Your task to perform on an android device: change keyboard looks Image 0: 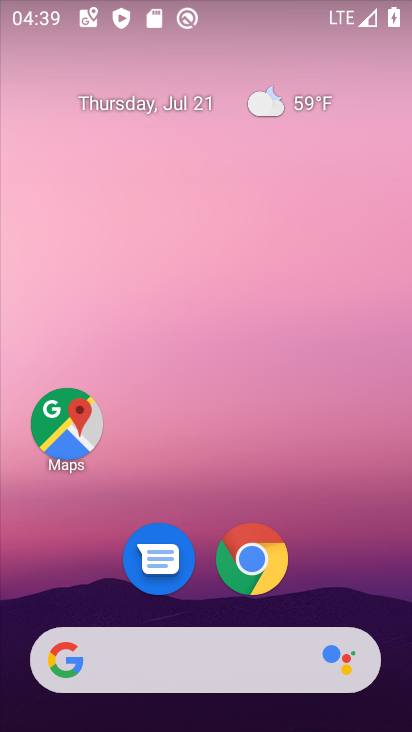
Step 0: drag from (94, 637) to (155, 5)
Your task to perform on an android device: change keyboard looks Image 1: 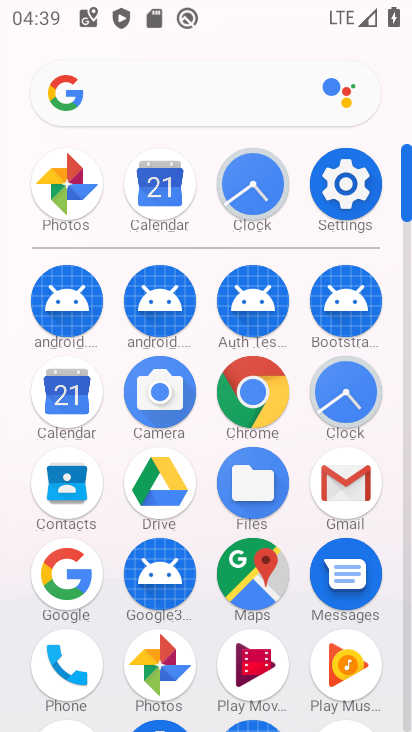
Step 1: click (338, 188)
Your task to perform on an android device: change keyboard looks Image 2: 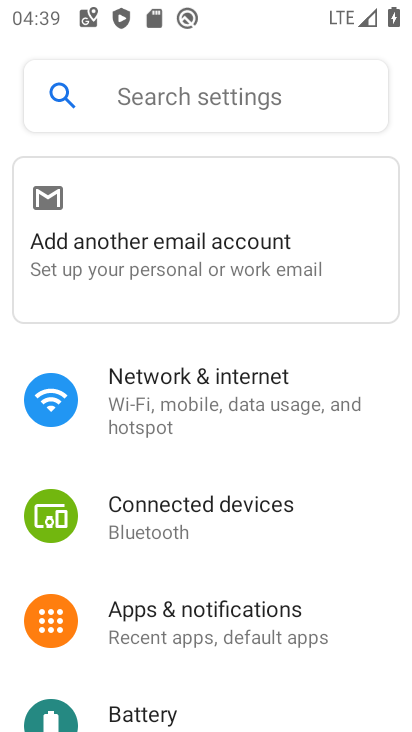
Step 2: drag from (157, 658) to (260, 18)
Your task to perform on an android device: change keyboard looks Image 3: 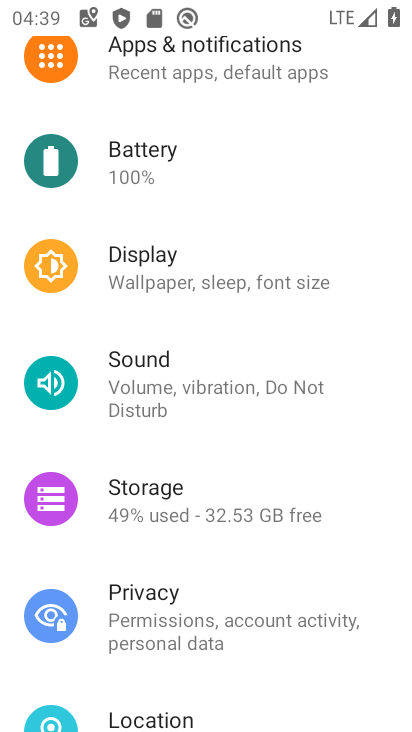
Step 3: drag from (178, 656) to (295, 14)
Your task to perform on an android device: change keyboard looks Image 4: 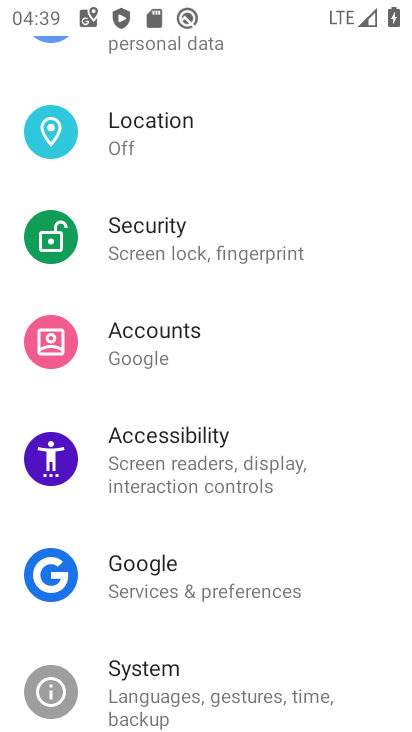
Step 4: click (168, 689)
Your task to perform on an android device: change keyboard looks Image 5: 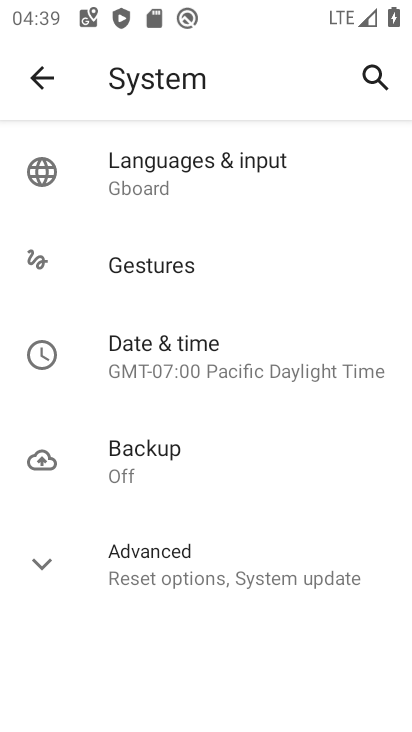
Step 5: click (144, 169)
Your task to perform on an android device: change keyboard looks Image 6: 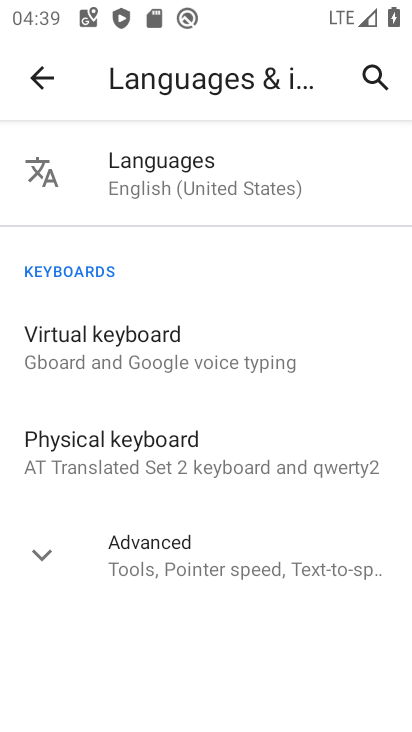
Step 6: click (136, 352)
Your task to perform on an android device: change keyboard looks Image 7: 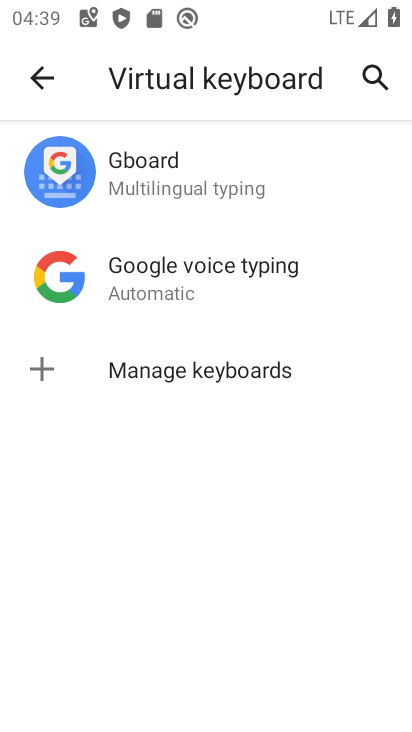
Step 7: click (166, 162)
Your task to perform on an android device: change keyboard looks Image 8: 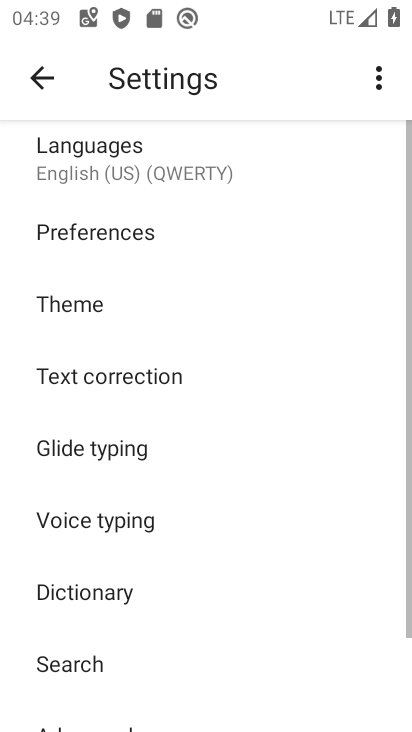
Step 8: click (68, 297)
Your task to perform on an android device: change keyboard looks Image 9: 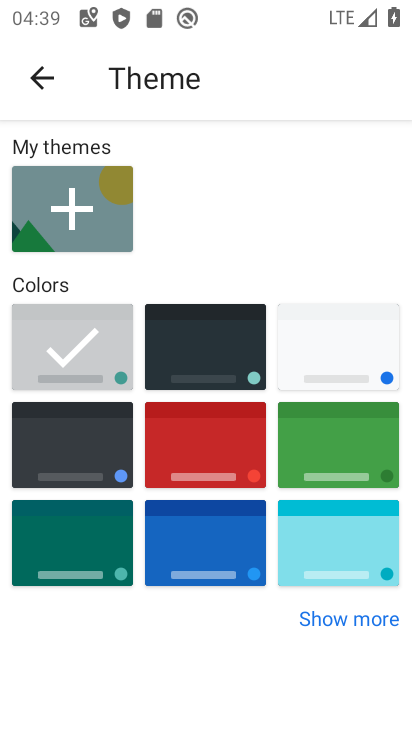
Step 9: click (360, 449)
Your task to perform on an android device: change keyboard looks Image 10: 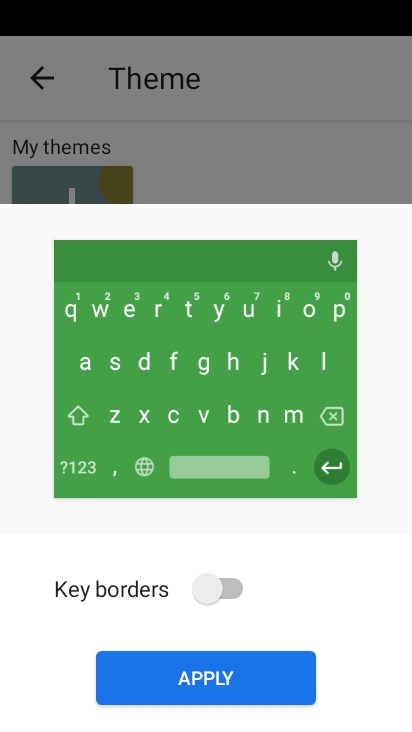
Step 10: click (188, 660)
Your task to perform on an android device: change keyboard looks Image 11: 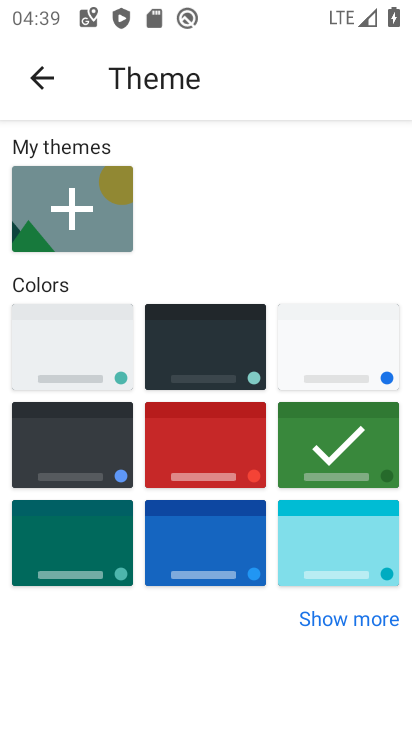
Step 11: task complete